Your task to perform on an android device: Open Google Chrome Image 0: 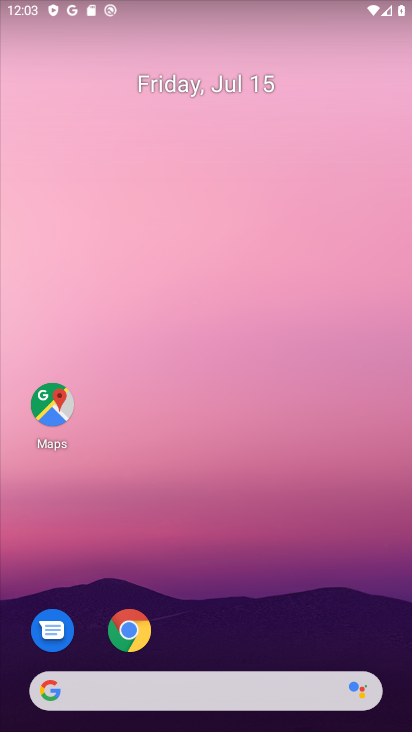
Step 0: click (141, 631)
Your task to perform on an android device: Open Google Chrome Image 1: 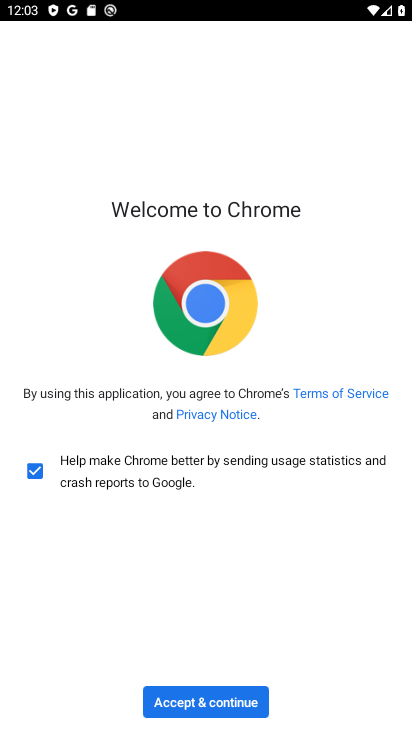
Step 1: click (212, 696)
Your task to perform on an android device: Open Google Chrome Image 2: 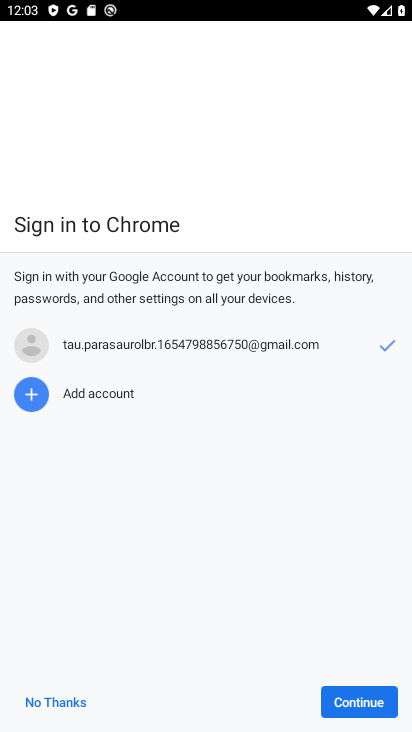
Step 2: click (388, 704)
Your task to perform on an android device: Open Google Chrome Image 3: 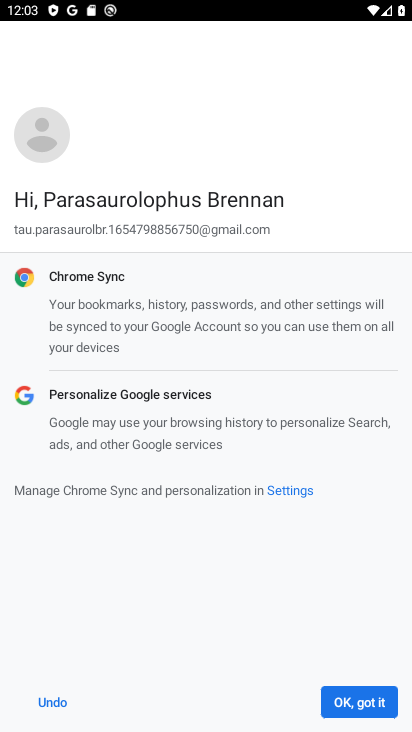
Step 3: click (359, 711)
Your task to perform on an android device: Open Google Chrome Image 4: 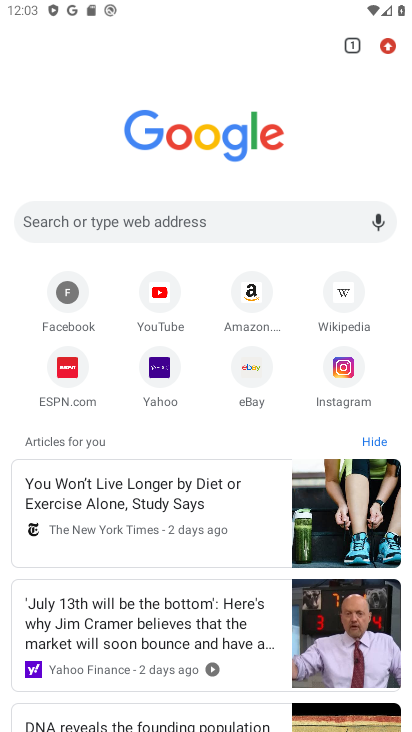
Step 4: task complete